Your task to perform on an android device: delete browsing data in the chrome app Image 0: 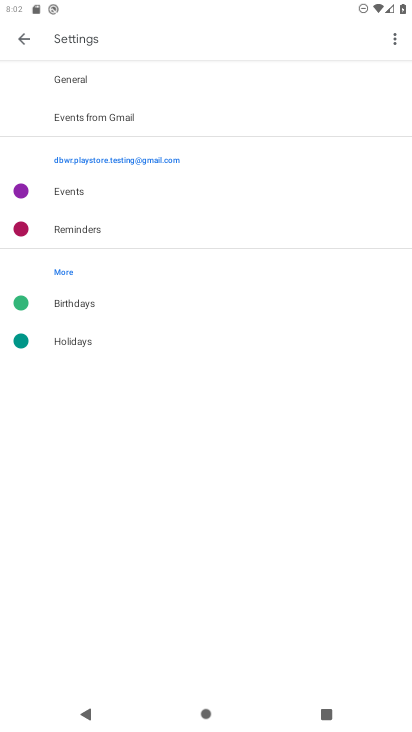
Step 0: press home button
Your task to perform on an android device: delete browsing data in the chrome app Image 1: 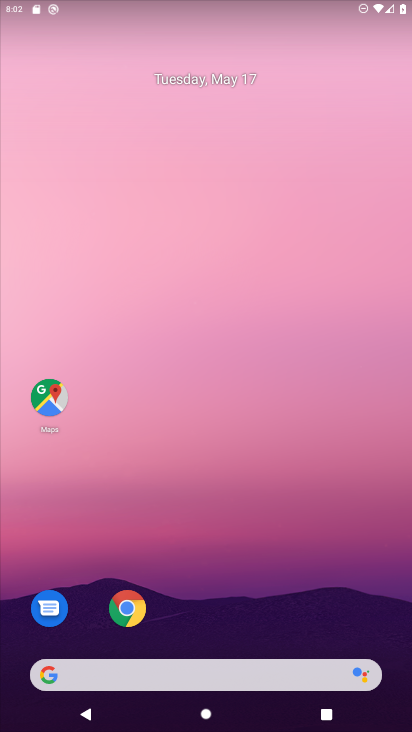
Step 1: drag from (204, 620) to (278, 233)
Your task to perform on an android device: delete browsing data in the chrome app Image 2: 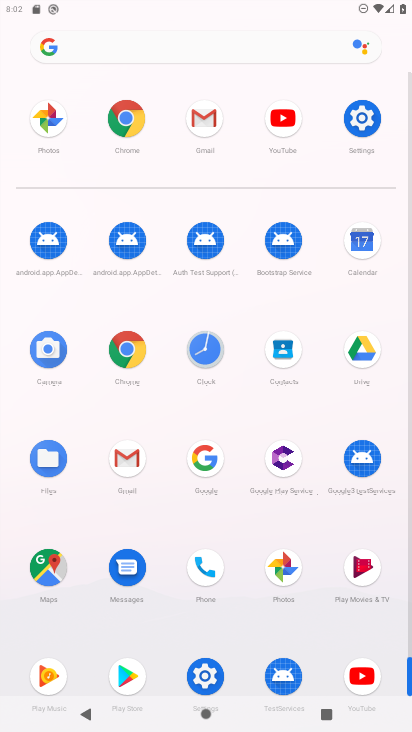
Step 2: click (115, 128)
Your task to perform on an android device: delete browsing data in the chrome app Image 3: 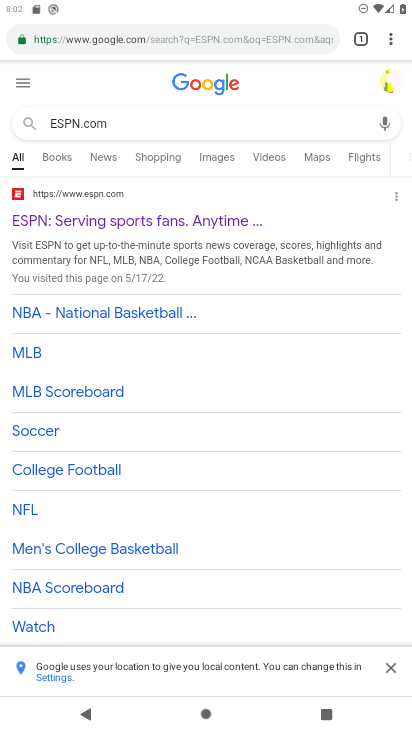
Step 3: click (390, 36)
Your task to perform on an android device: delete browsing data in the chrome app Image 4: 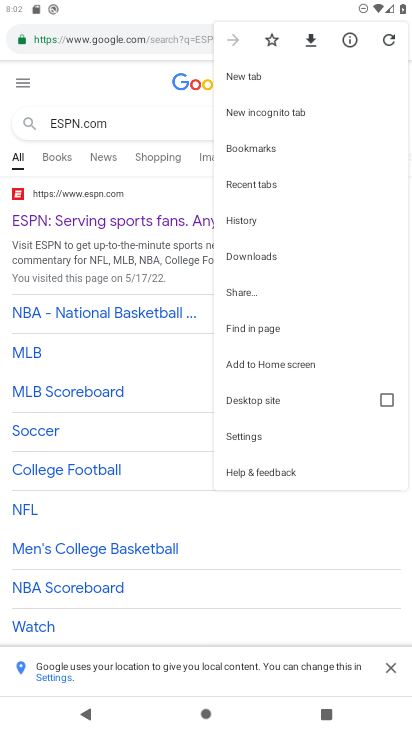
Step 4: click (251, 217)
Your task to perform on an android device: delete browsing data in the chrome app Image 5: 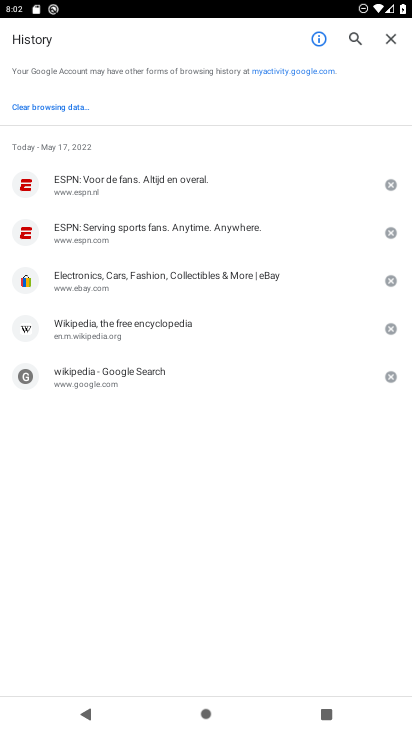
Step 5: click (55, 112)
Your task to perform on an android device: delete browsing data in the chrome app Image 6: 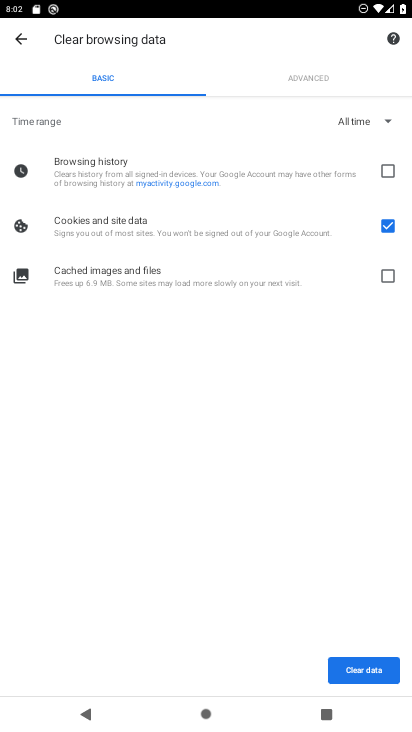
Step 6: click (382, 171)
Your task to perform on an android device: delete browsing data in the chrome app Image 7: 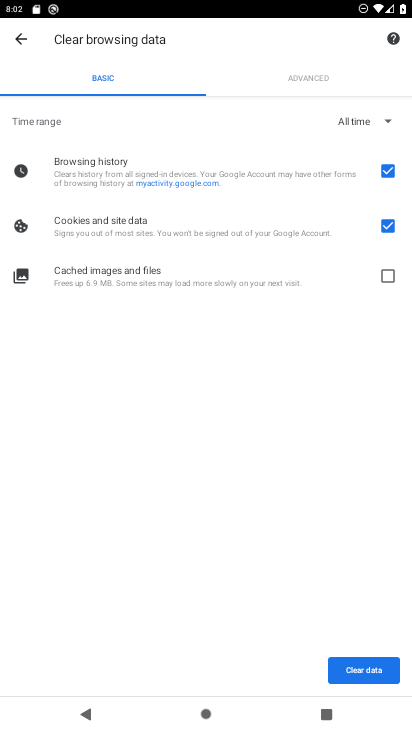
Step 7: click (387, 273)
Your task to perform on an android device: delete browsing data in the chrome app Image 8: 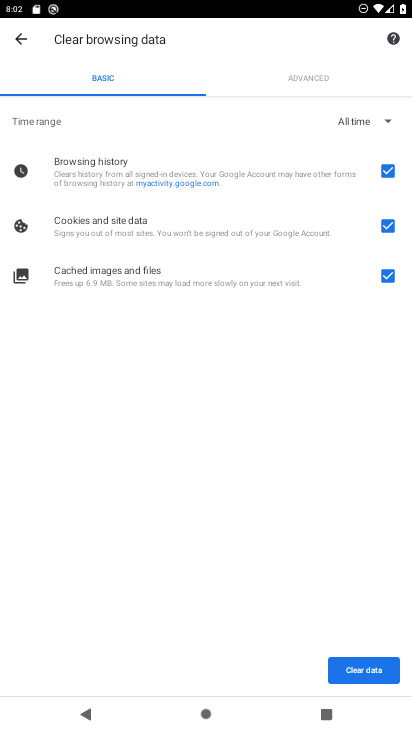
Step 8: click (358, 666)
Your task to perform on an android device: delete browsing data in the chrome app Image 9: 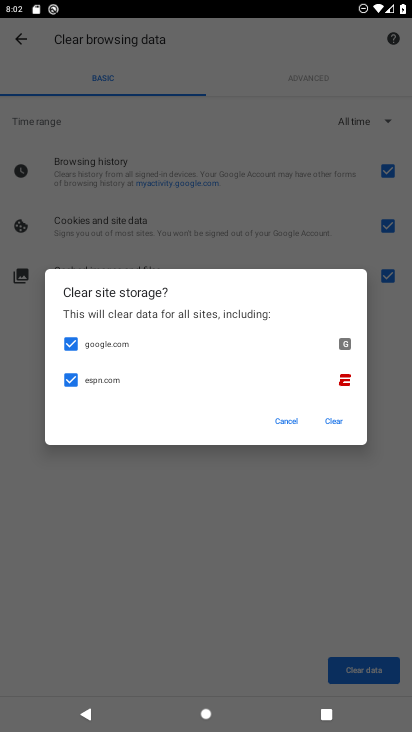
Step 9: click (332, 420)
Your task to perform on an android device: delete browsing data in the chrome app Image 10: 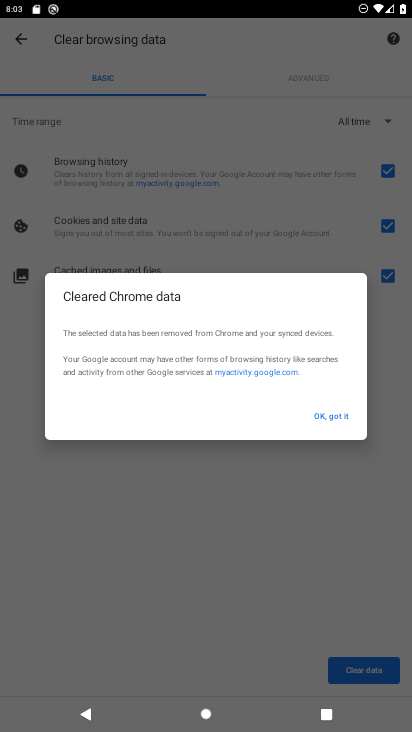
Step 10: click (332, 416)
Your task to perform on an android device: delete browsing data in the chrome app Image 11: 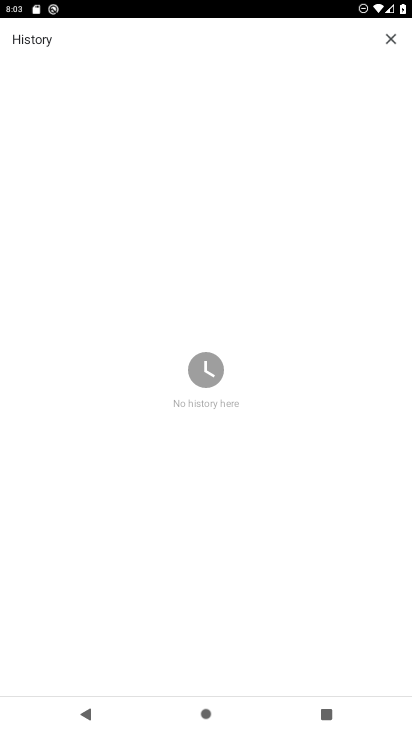
Step 11: task complete